Your task to perform on an android device: all mails in gmail Image 0: 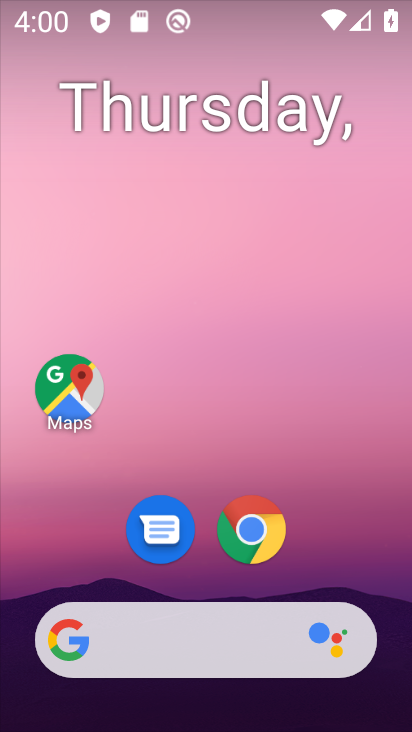
Step 0: drag from (181, 596) to (239, 215)
Your task to perform on an android device: all mails in gmail Image 1: 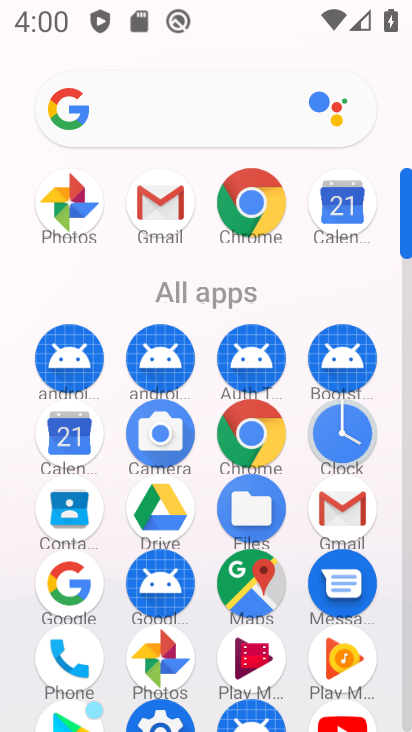
Step 1: click (166, 210)
Your task to perform on an android device: all mails in gmail Image 2: 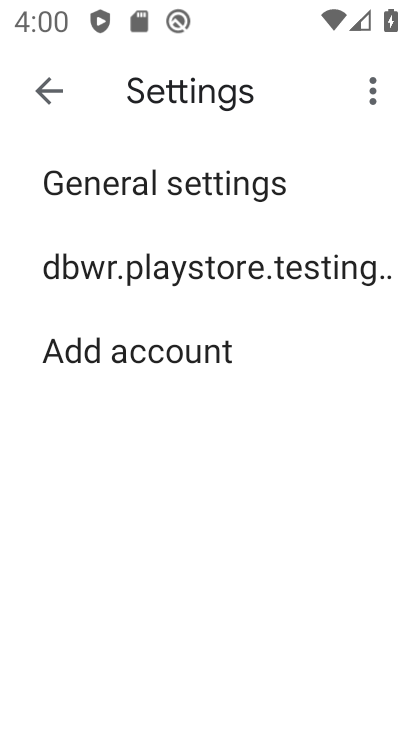
Step 2: click (44, 100)
Your task to perform on an android device: all mails in gmail Image 3: 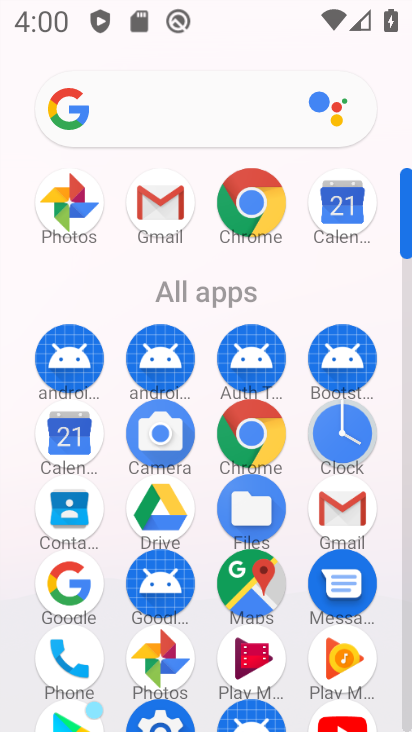
Step 3: click (147, 208)
Your task to perform on an android device: all mails in gmail Image 4: 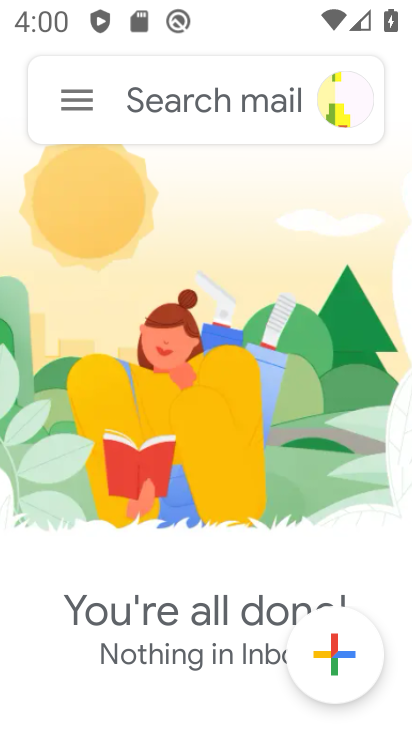
Step 4: click (72, 106)
Your task to perform on an android device: all mails in gmail Image 5: 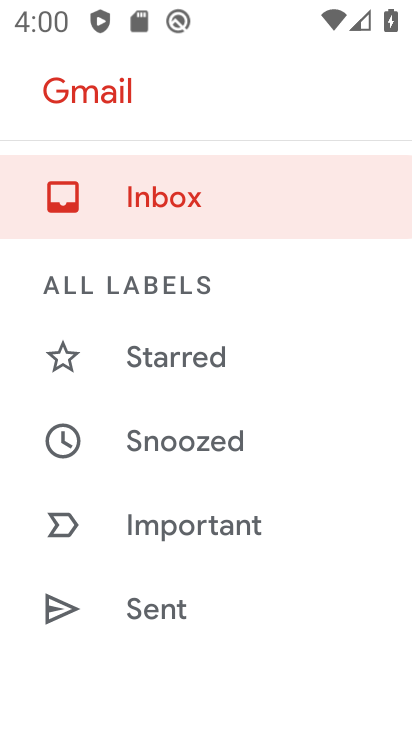
Step 5: drag from (169, 628) to (197, 263)
Your task to perform on an android device: all mails in gmail Image 6: 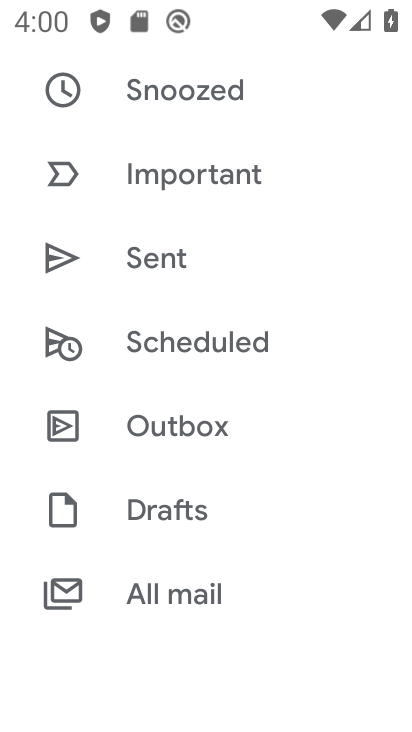
Step 6: click (166, 584)
Your task to perform on an android device: all mails in gmail Image 7: 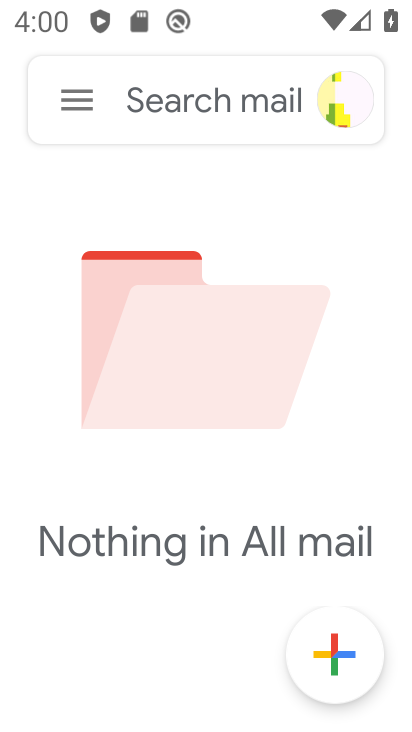
Step 7: task complete